Your task to perform on an android device: Go to display settings Image 0: 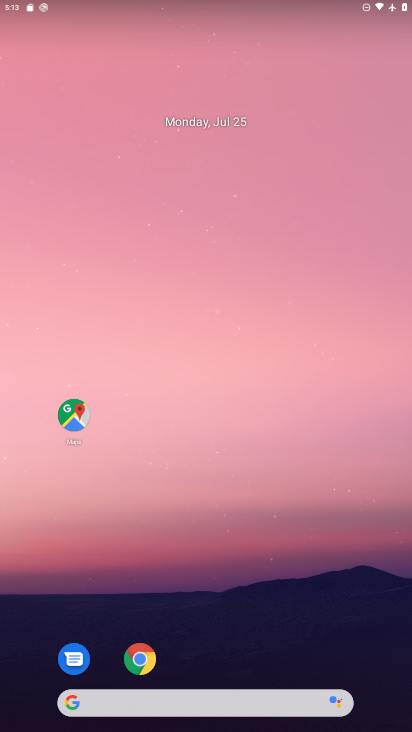
Step 0: drag from (250, 664) to (266, 9)
Your task to perform on an android device: Go to display settings Image 1: 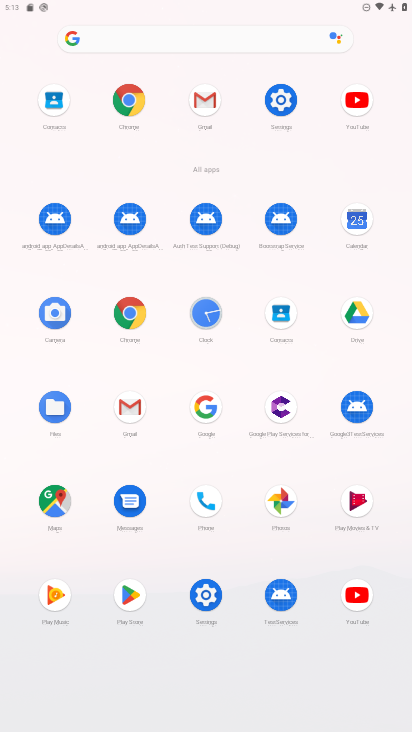
Step 1: click (267, 99)
Your task to perform on an android device: Go to display settings Image 2: 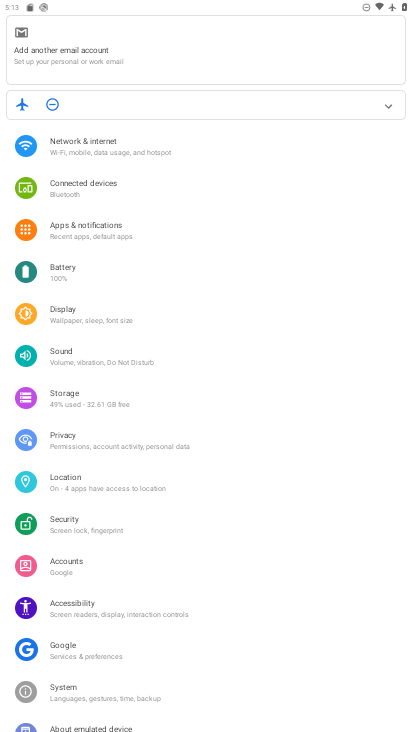
Step 2: click (115, 313)
Your task to perform on an android device: Go to display settings Image 3: 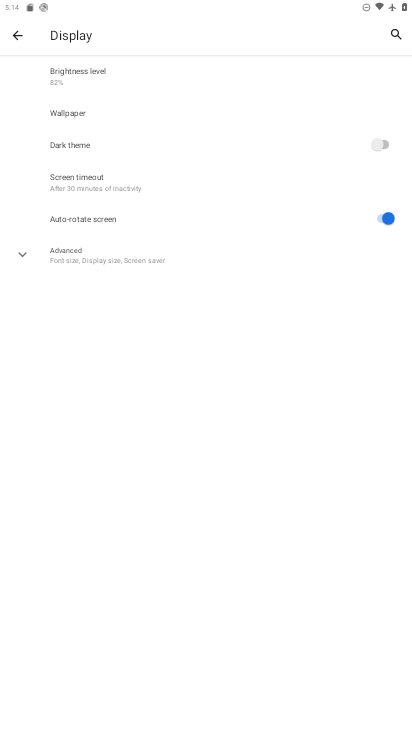
Step 3: task complete